Your task to perform on an android device: set default search engine in the chrome app Image 0: 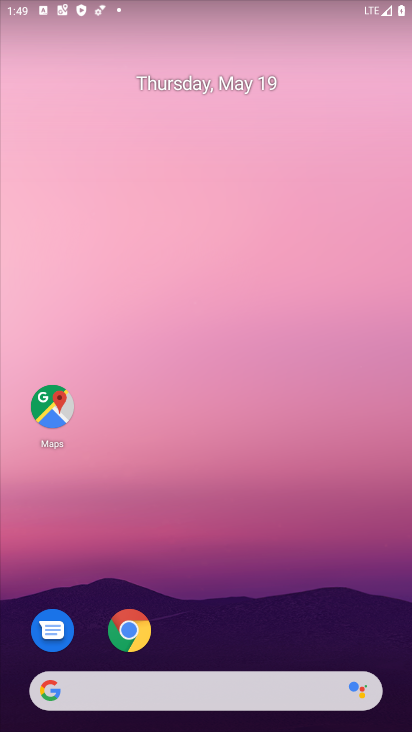
Step 0: click (129, 630)
Your task to perform on an android device: set default search engine in the chrome app Image 1: 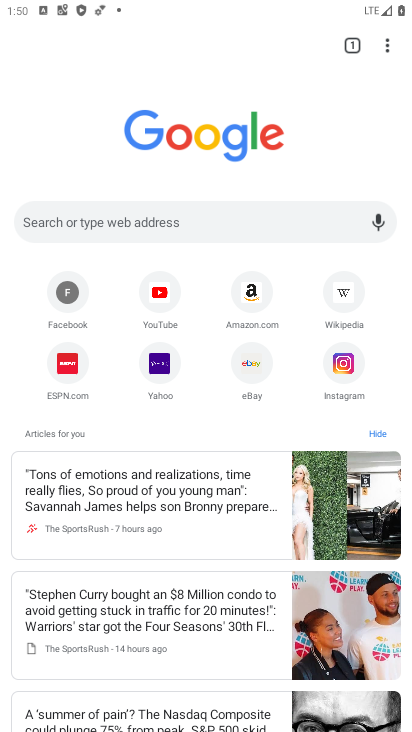
Step 1: click (385, 50)
Your task to perform on an android device: set default search engine in the chrome app Image 2: 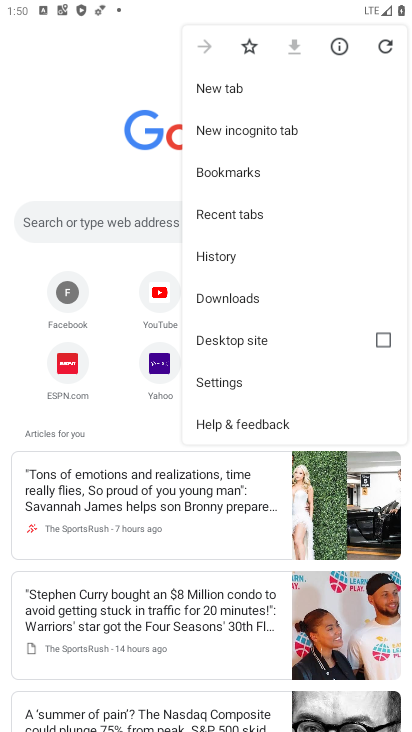
Step 2: click (226, 383)
Your task to perform on an android device: set default search engine in the chrome app Image 3: 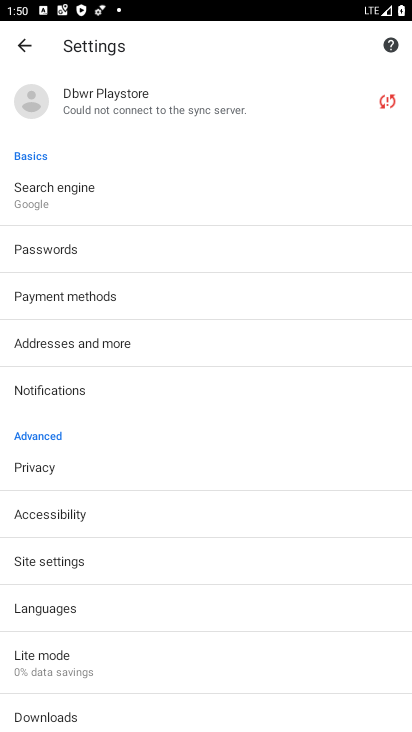
Step 3: click (51, 186)
Your task to perform on an android device: set default search engine in the chrome app Image 4: 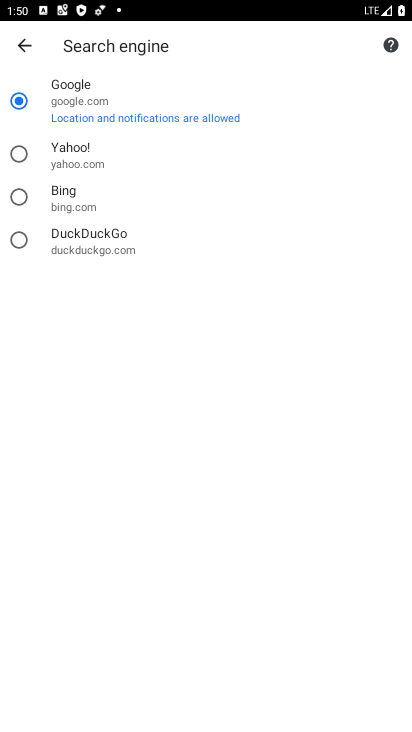
Step 4: click (16, 151)
Your task to perform on an android device: set default search engine in the chrome app Image 5: 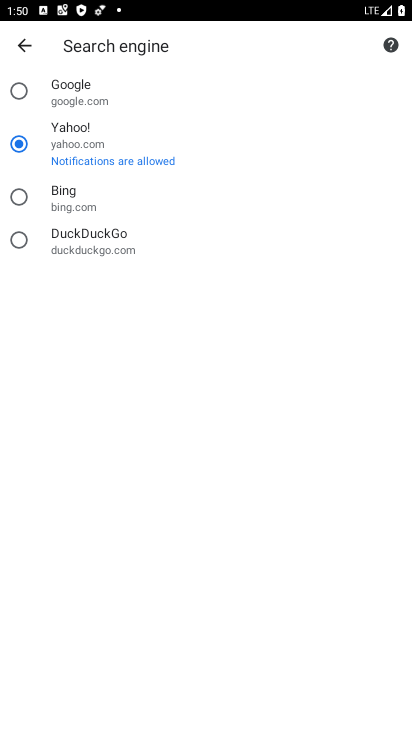
Step 5: task complete